Your task to perform on an android device: Open Chrome and go to the settings page Image 0: 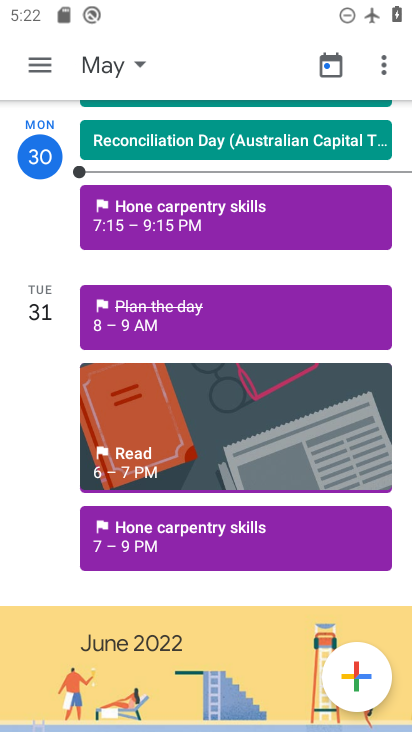
Step 0: press home button
Your task to perform on an android device: Open Chrome and go to the settings page Image 1: 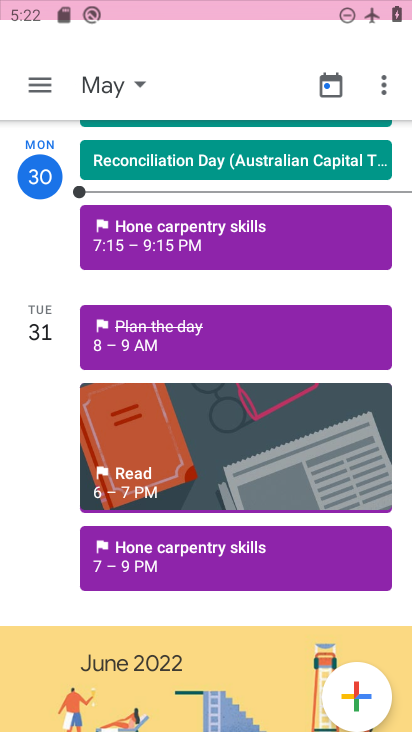
Step 1: press home button
Your task to perform on an android device: Open Chrome and go to the settings page Image 2: 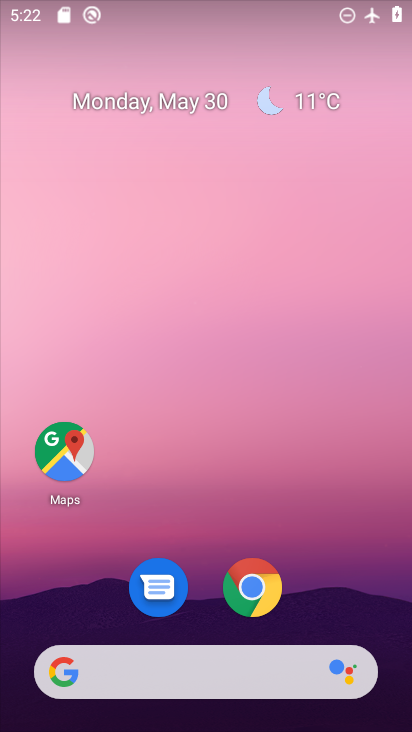
Step 2: click (239, 581)
Your task to perform on an android device: Open Chrome and go to the settings page Image 3: 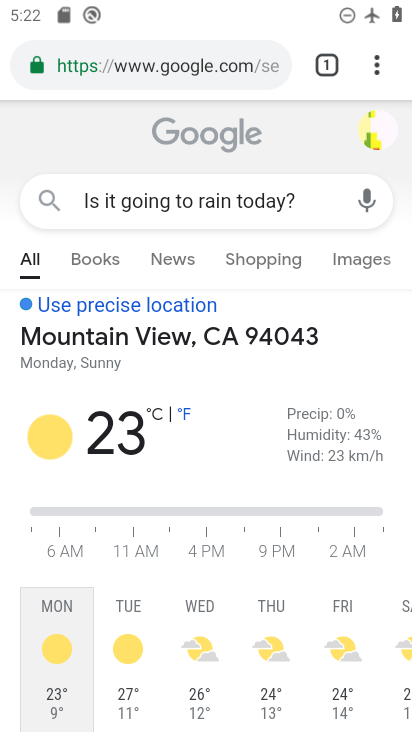
Step 3: task complete